Your task to perform on an android device: Clear the cart on bestbuy.com. Image 0: 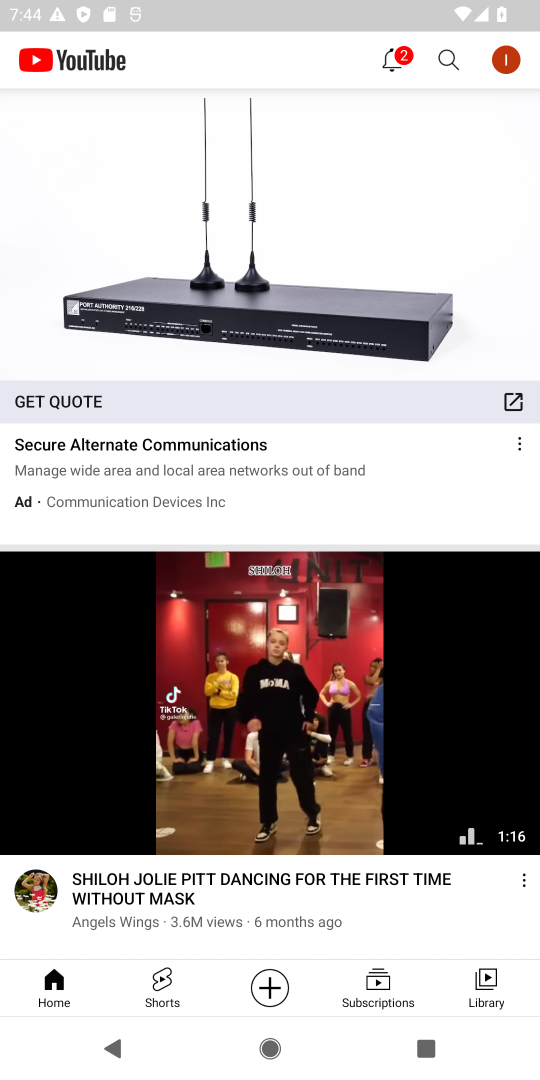
Step 0: press home button
Your task to perform on an android device: Clear the cart on bestbuy.com. Image 1: 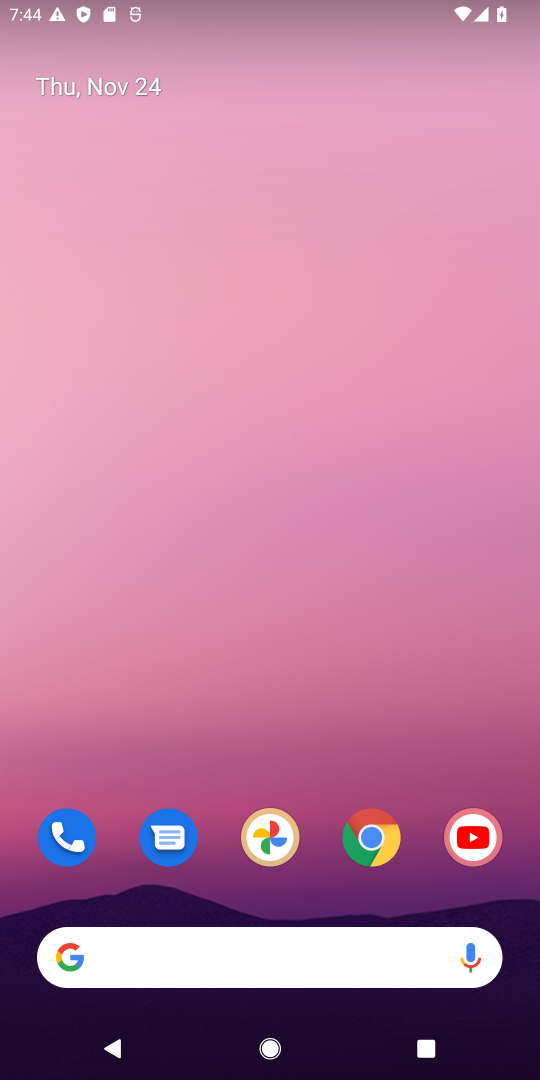
Step 1: click (378, 835)
Your task to perform on an android device: Clear the cart on bestbuy.com. Image 2: 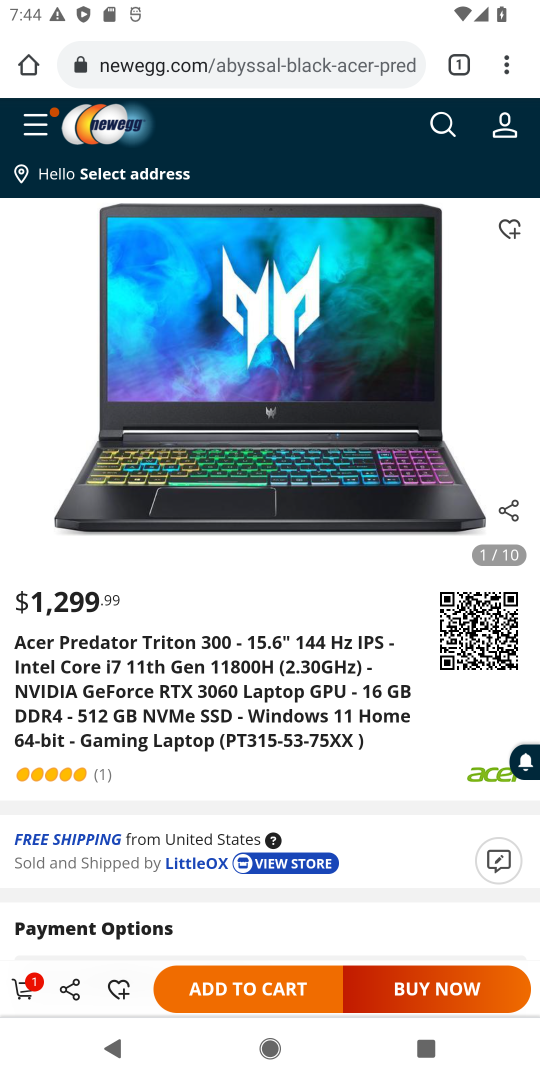
Step 2: click (265, 65)
Your task to perform on an android device: Clear the cart on bestbuy.com. Image 3: 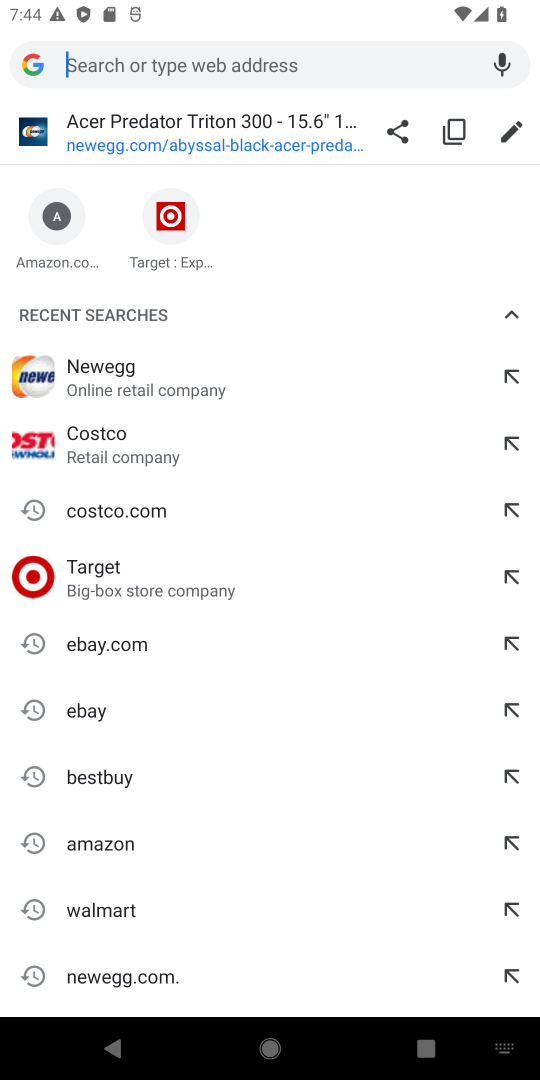
Step 3: type "besrbuy.com"
Your task to perform on an android device: Clear the cart on bestbuy.com. Image 4: 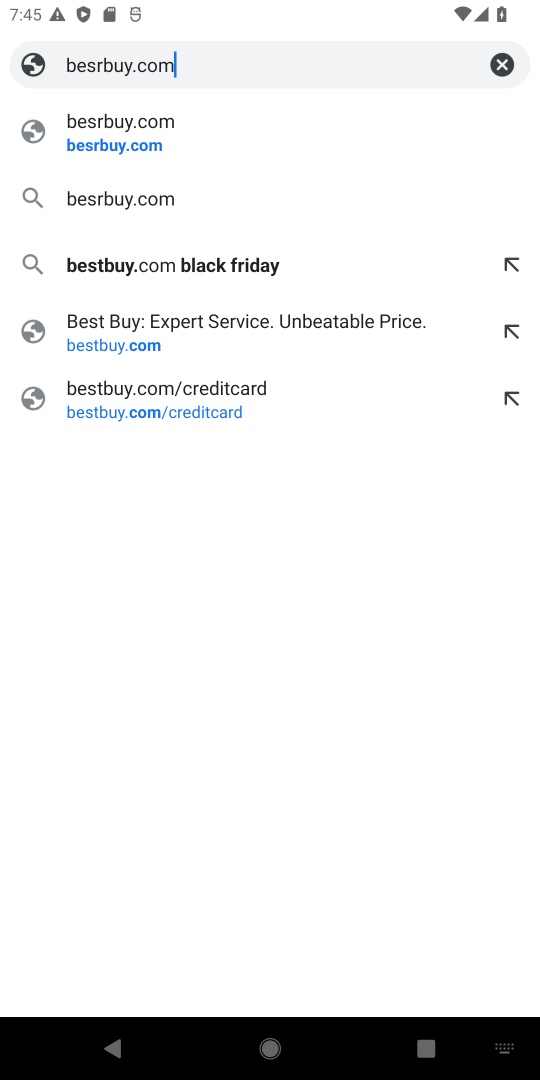
Step 4: click (143, 261)
Your task to perform on an android device: Clear the cart on bestbuy.com. Image 5: 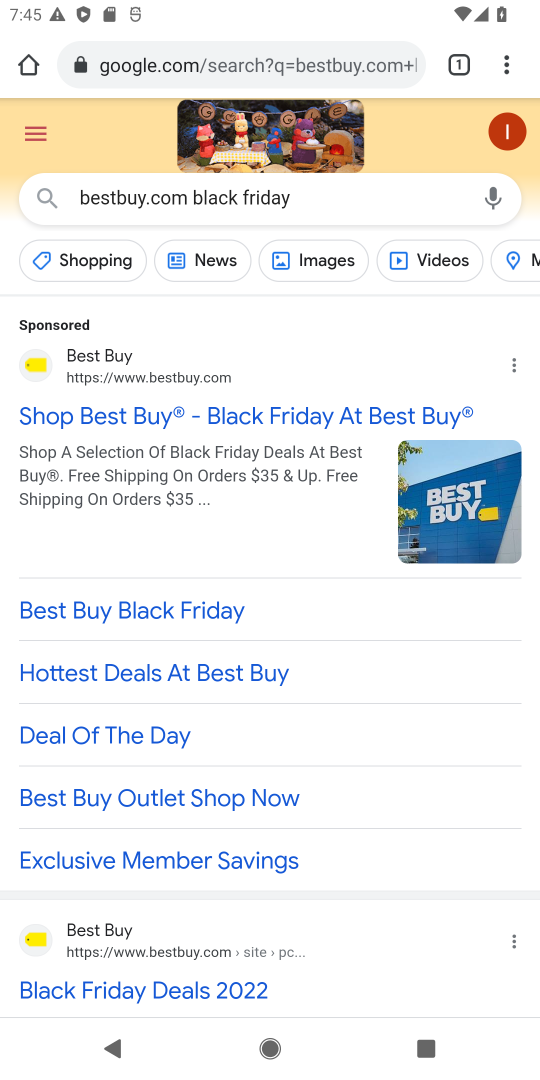
Step 5: click (147, 398)
Your task to perform on an android device: Clear the cart on bestbuy.com. Image 6: 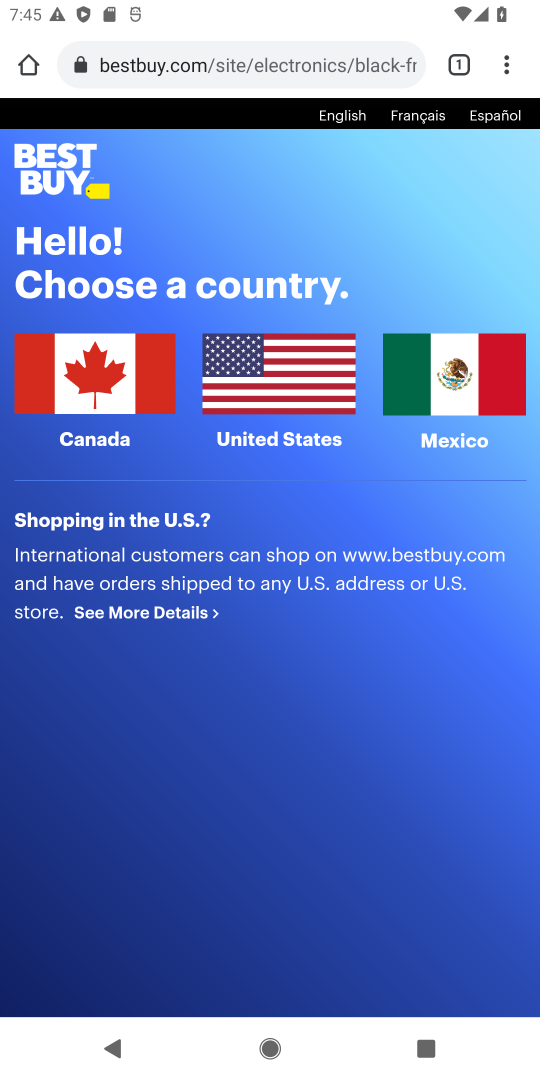
Step 6: click (297, 374)
Your task to perform on an android device: Clear the cart on bestbuy.com. Image 7: 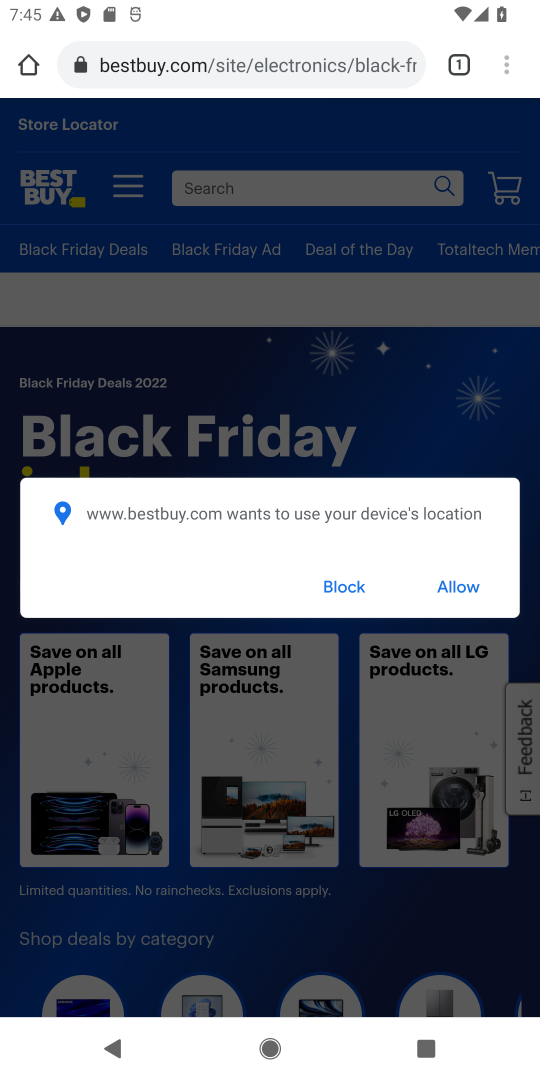
Step 7: click (449, 580)
Your task to perform on an android device: Clear the cart on bestbuy.com. Image 8: 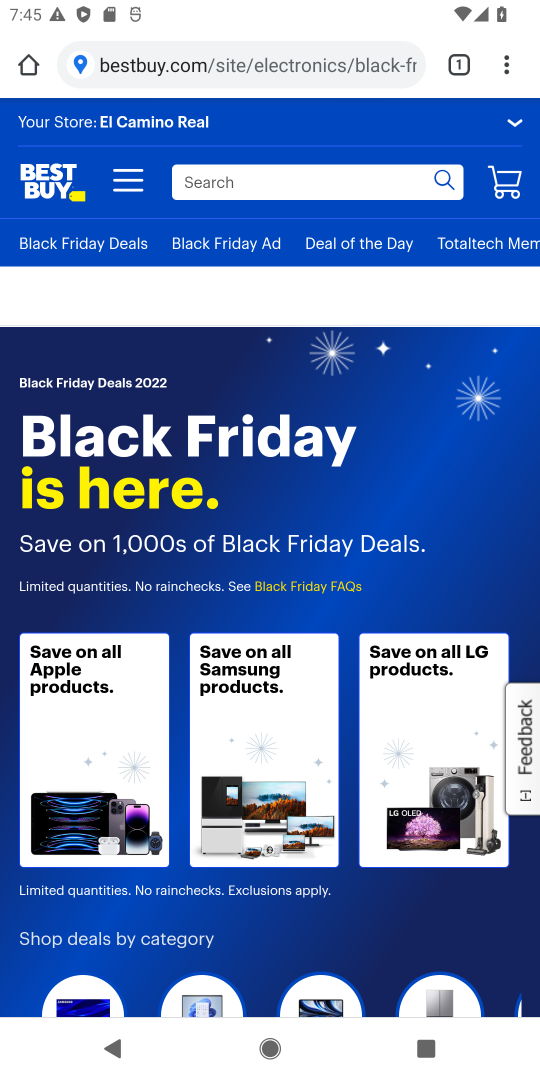
Step 8: click (512, 180)
Your task to perform on an android device: Clear the cart on bestbuy.com. Image 9: 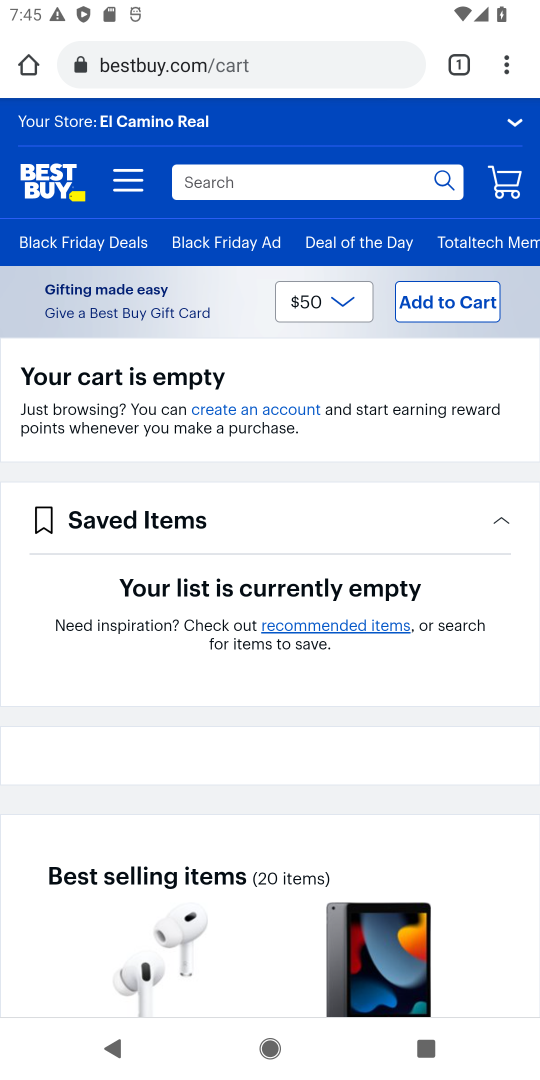
Step 9: task complete